Your task to perform on an android device: Search for the best rated lawnmower on Lowes.com Image 0: 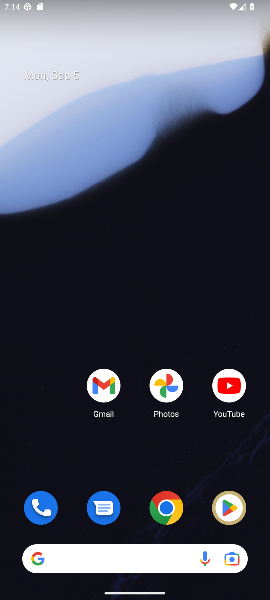
Step 0: click (164, 509)
Your task to perform on an android device: Search for the best rated lawnmower on Lowes.com Image 1: 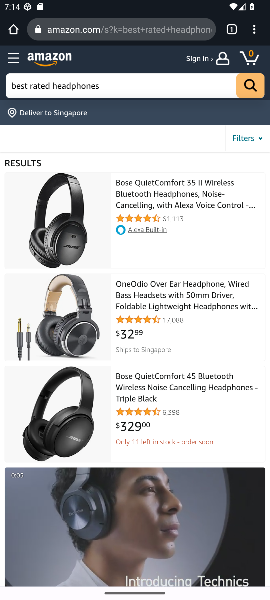
Step 1: click (115, 35)
Your task to perform on an android device: Search for the best rated lawnmower on Lowes.com Image 2: 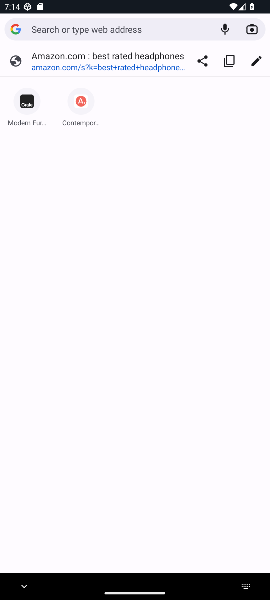
Step 2: type "Lowes.com"
Your task to perform on an android device: Search for the best rated lawnmower on Lowes.com Image 3: 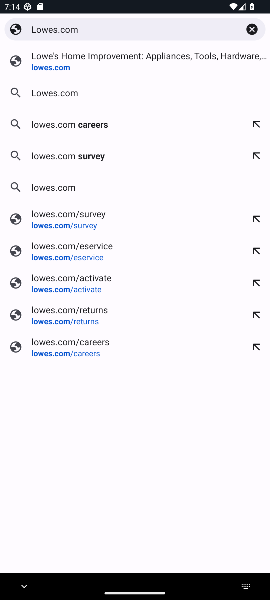
Step 3: click (50, 96)
Your task to perform on an android device: Search for the best rated lawnmower on Lowes.com Image 4: 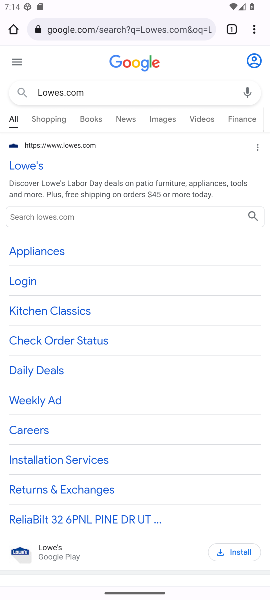
Step 4: click (20, 173)
Your task to perform on an android device: Search for the best rated lawnmower on Lowes.com Image 5: 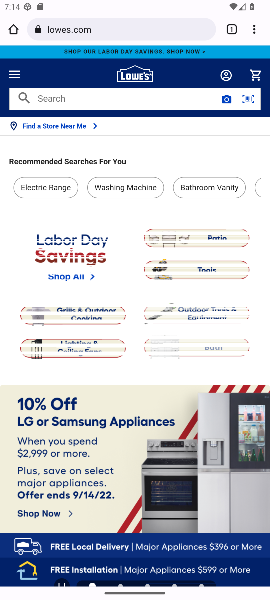
Step 5: click (66, 96)
Your task to perform on an android device: Search for the best rated lawnmower on Lowes.com Image 6: 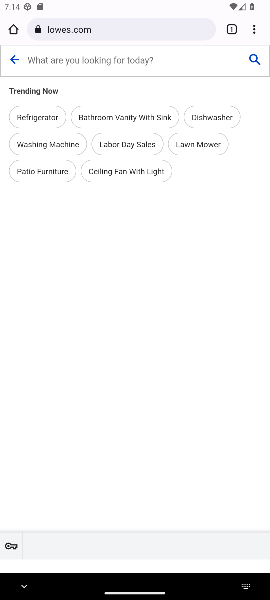
Step 6: type "best rated lawnmower"
Your task to perform on an android device: Search for the best rated lawnmower on Lowes.com Image 7: 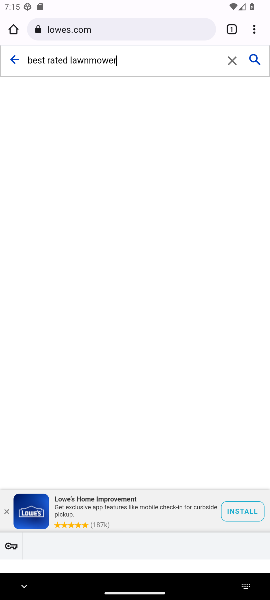
Step 7: click (257, 61)
Your task to perform on an android device: Search for the best rated lawnmower on Lowes.com Image 8: 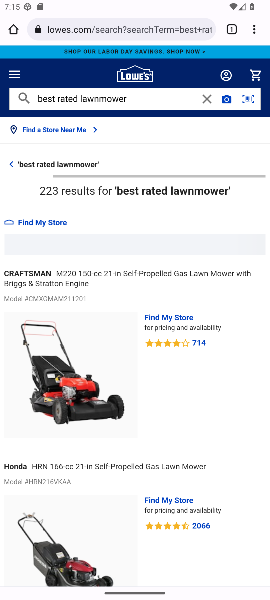
Step 8: task complete